Your task to perform on an android device: What's the weather? Image 0: 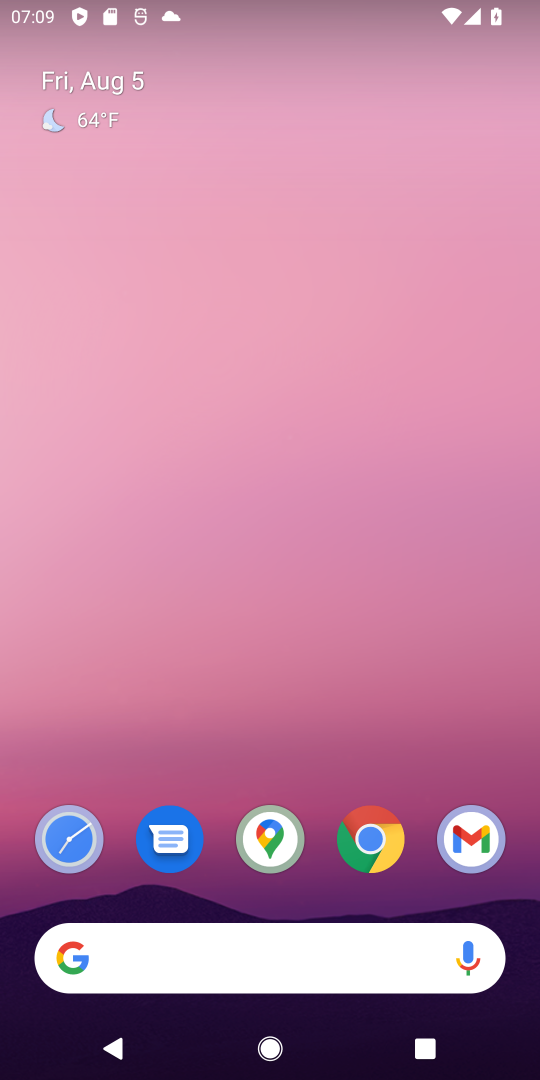
Step 0: drag from (316, 871) to (288, 171)
Your task to perform on an android device: What's the weather? Image 1: 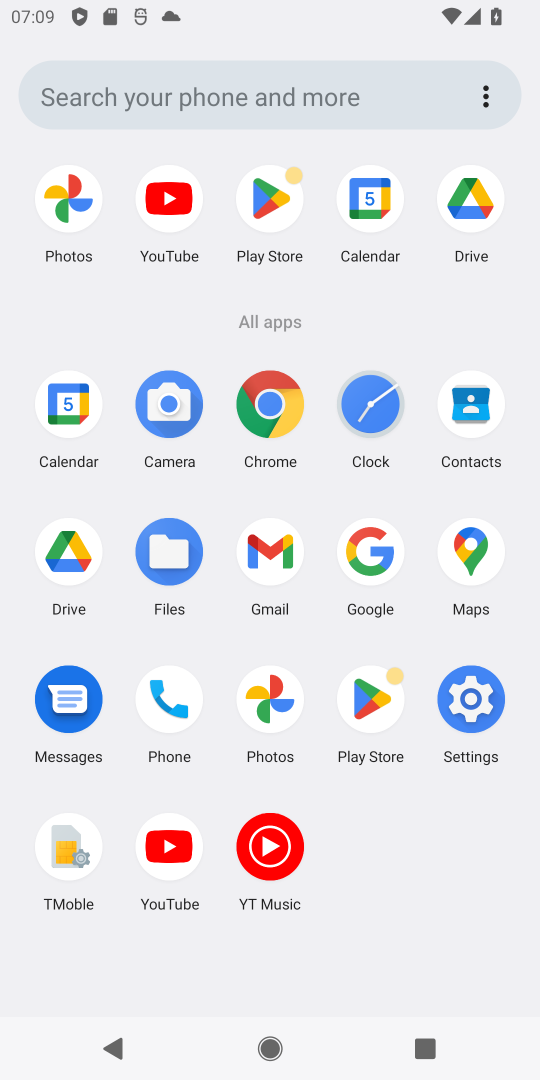
Step 1: click (370, 552)
Your task to perform on an android device: What's the weather? Image 2: 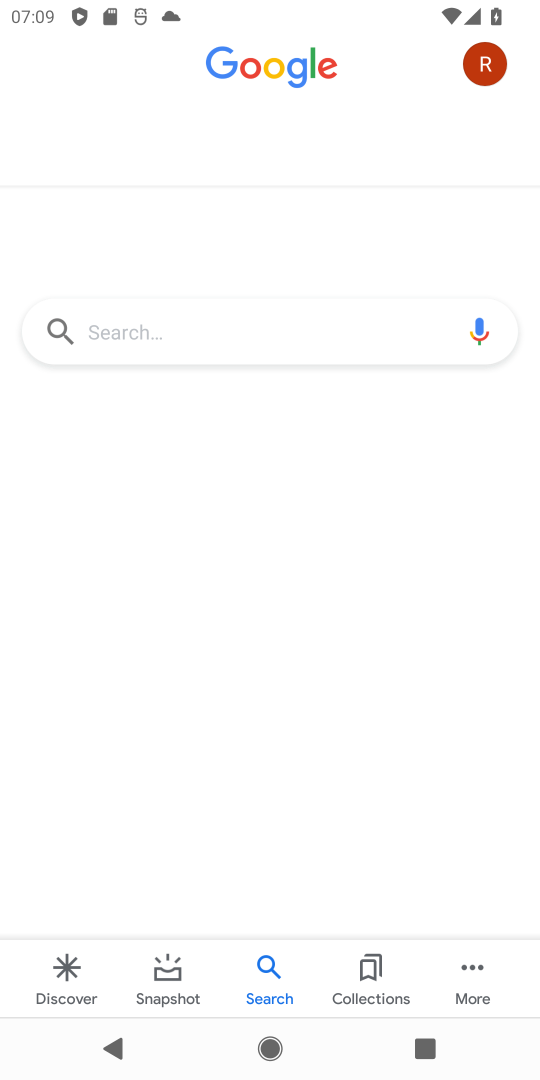
Step 2: click (292, 333)
Your task to perform on an android device: What's the weather? Image 3: 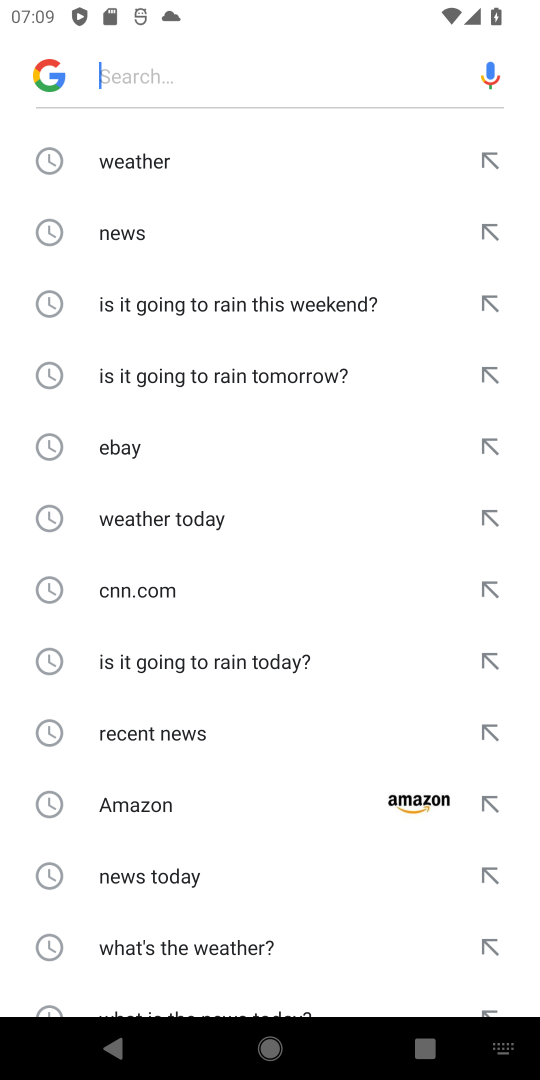
Step 3: click (149, 163)
Your task to perform on an android device: What's the weather? Image 4: 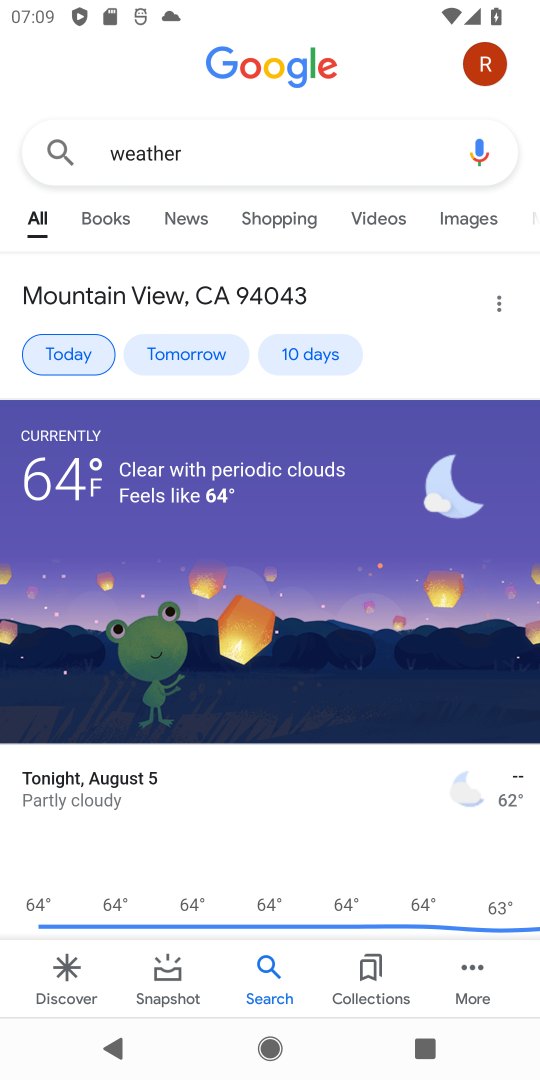
Step 4: click (75, 356)
Your task to perform on an android device: What's the weather? Image 5: 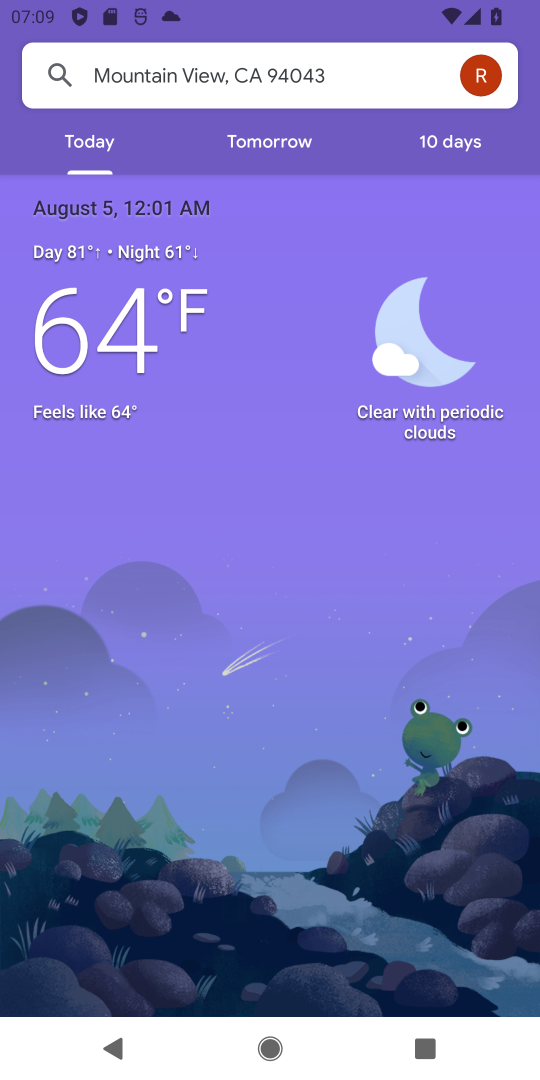
Step 5: task complete